Your task to perform on an android device: Open sound settings Image 0: 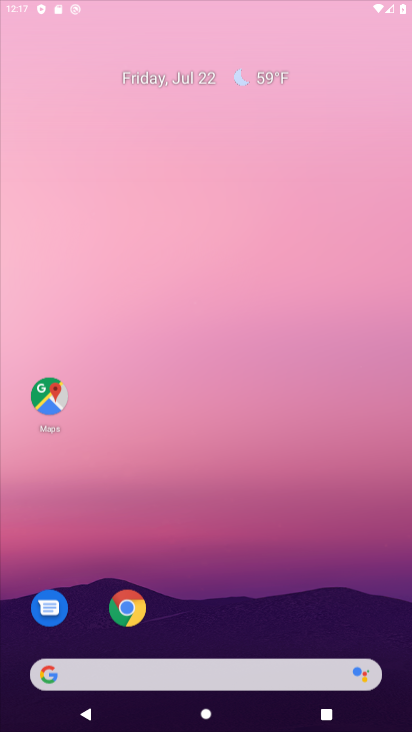
Step 0: drag from (234, 193) to (262, 28)
Your task to perform on an android device: Open sound settings Image 1: 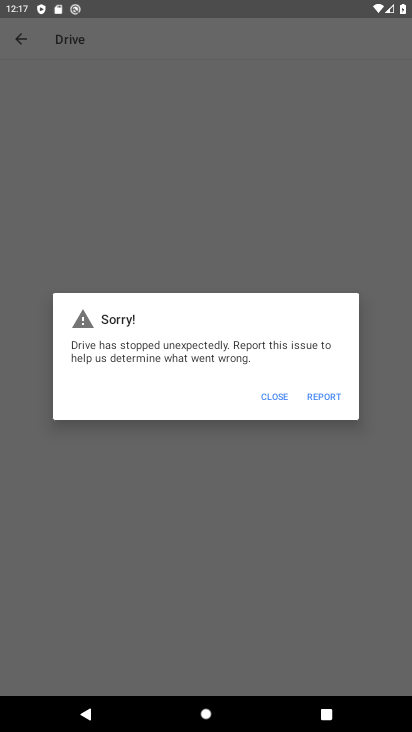
Step 1: press home button
Your task to perform on an android device: Open sound settings Image 2: 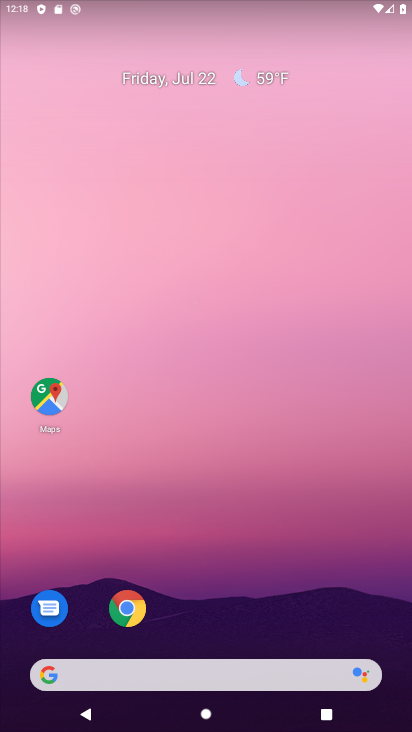
Step 2: drag from (191, 588) to (170, 5)
Your task to perform on an android device: Open sound settings Image 3: 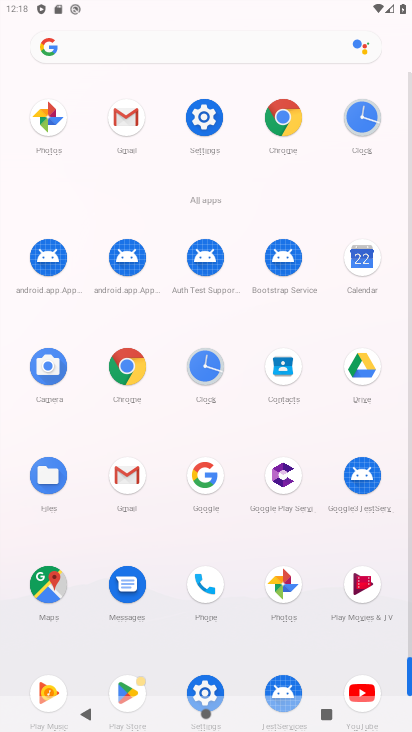
Step 3: click (199, 682)
Your task to perform on an android device: Open sound settings Image 4: 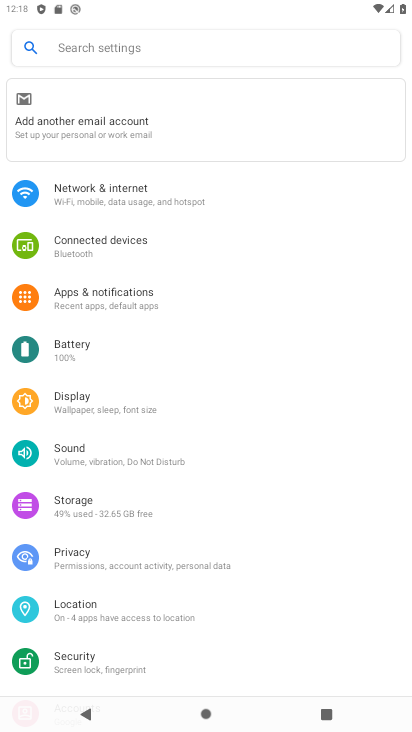
Step 4: click (84, 455)
Your task to perform on an android device: Open sound settings Image 5: 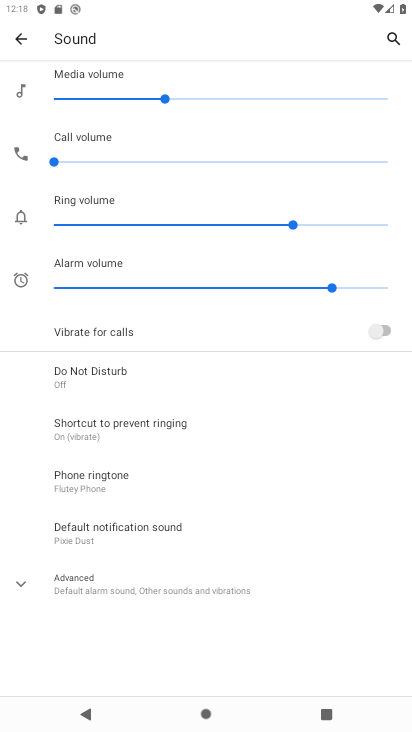
Step 5: task complete